Your task to perform on an android device: Open Google Maps and go to "Timeline" Image 0: 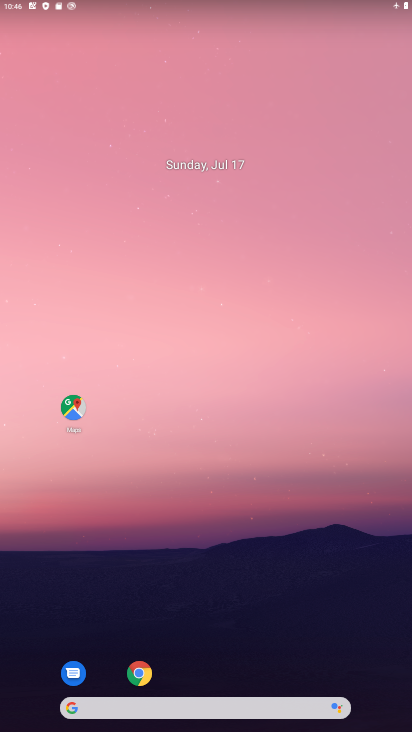
Step 0: drag from (216, 654) to (193, 110)
Your task to perform on an android device: Open Google Maps and go to "Timeline" Image 1: 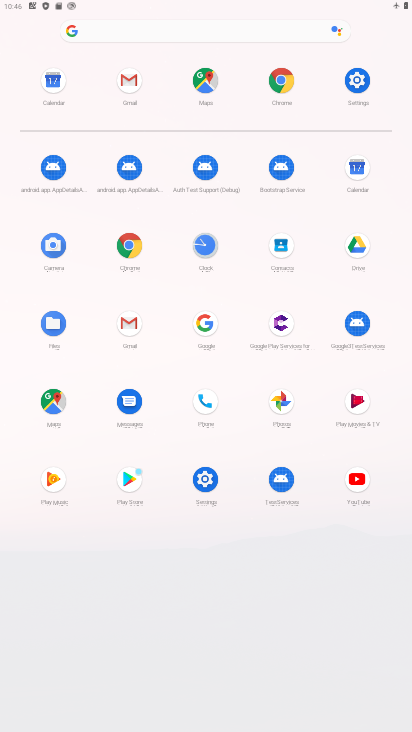
Step 1: click (207, 81)
Your task to perform on an android device: Open Google Maps and go to "Timeline" Image 2: 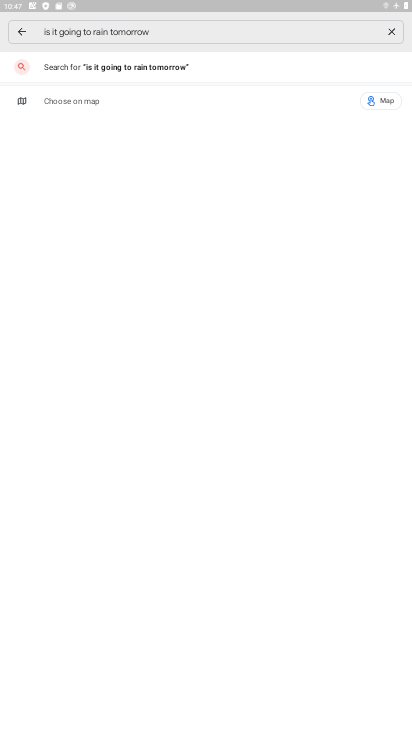
Step 2: press back button
Your task to perform on an android device: Open Google Maps and go to "Timeline" Image 3: 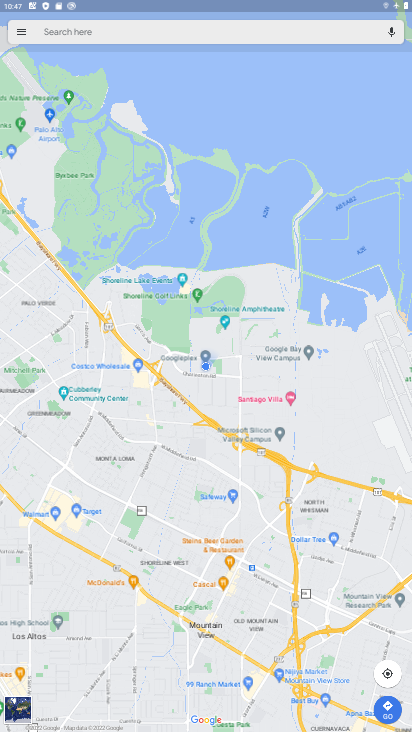
Step 3: click (21, 30)
Your task to perform on an android device: Open Google Maps and go to "Timeline" Image 4: 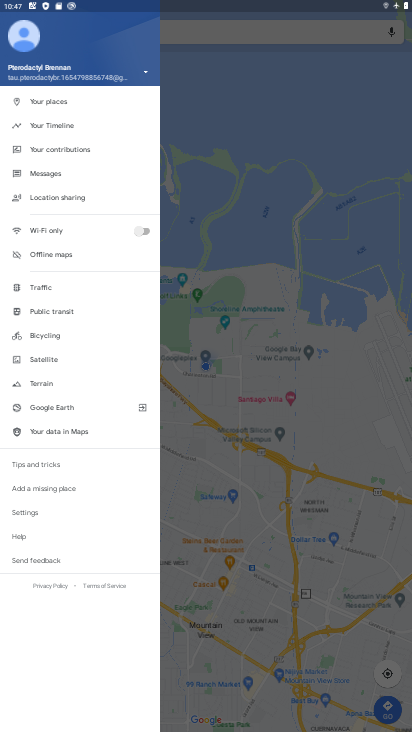
Step 4: click (58, 118)
Your task to perform on an android device: Open Google Maps and go to "Timeline" Image 5: 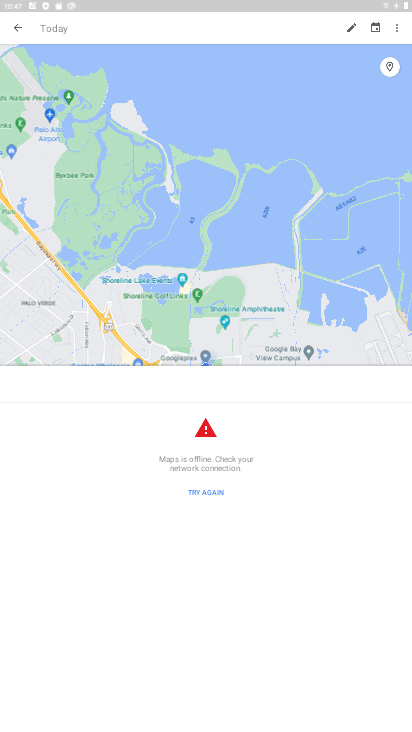
Step 5: task complete